Your task to perform on an android device: toggle show notifications on the lock screen Image 0: 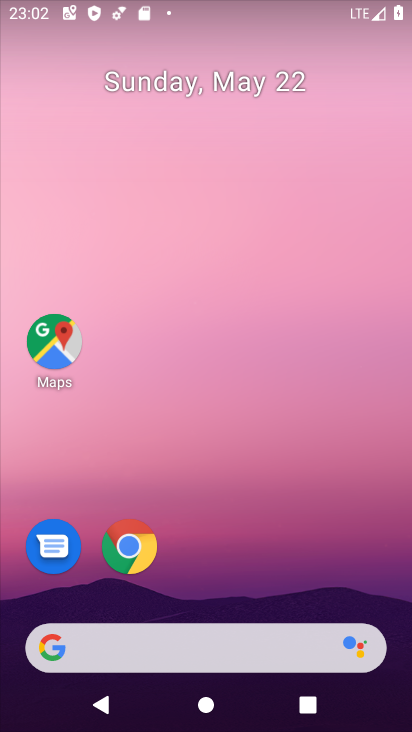
Step 0: drag from (188, 604) to (199, 8)
Your task to perform on an android device: toggle show notifications on the lock screen Image 1: 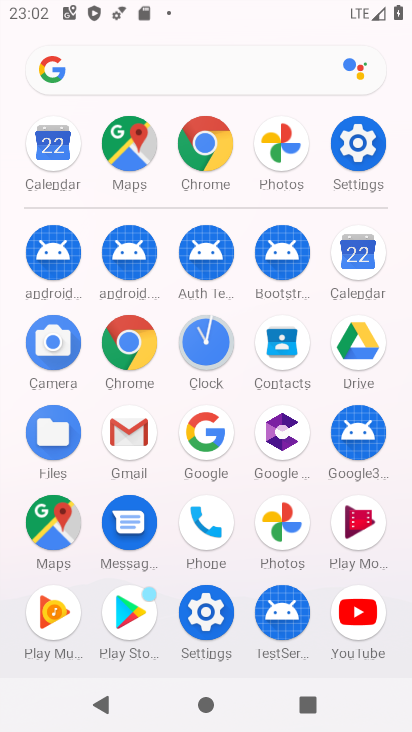
Step 1: click (361, 161)
Your task to perform on an android device: toggle show notifications on the lock screen Image 2: 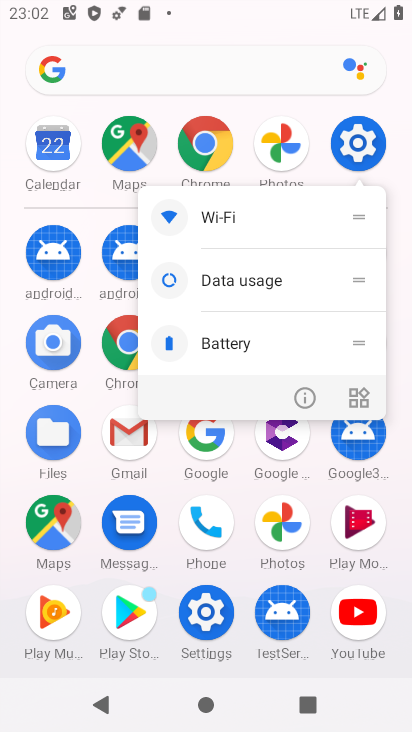
Step 2: click (308, 397)
Your task to perform on an android device: toggle show notifications on the lock screen Image 3: 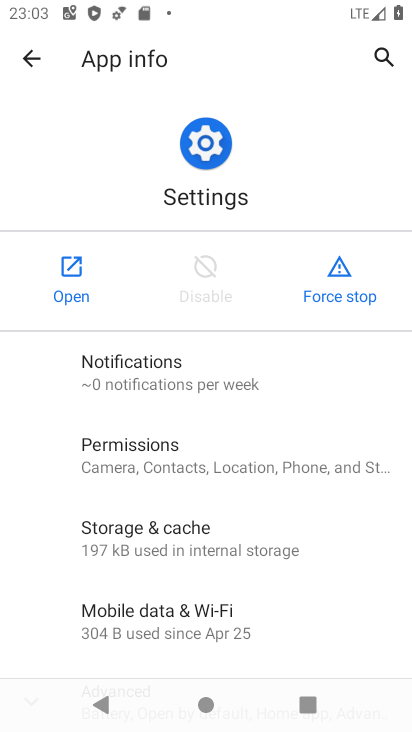
Step 3: click (58, 289)
Your task to perform on an android device: toggle show notifications on the lock screen Image 4: 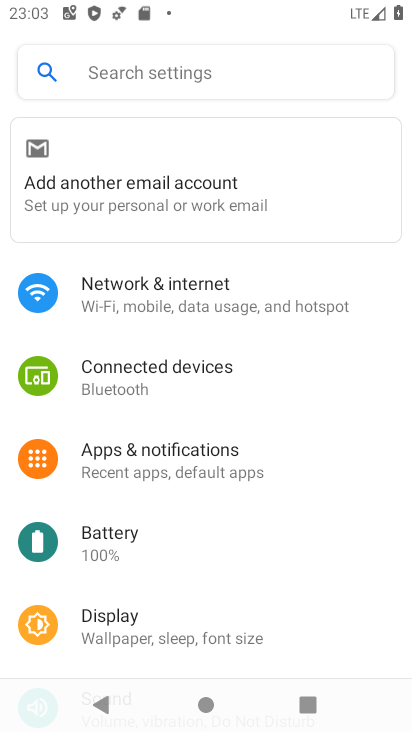
Step 4: drag from (207, 626) to (209, 34)
Your task to perform on an android device: toggle show notifications on the lock screen Image 5: 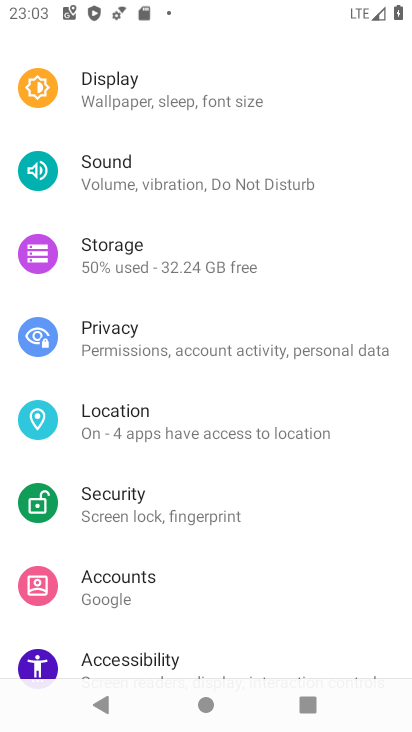
Step 5: drag from (171, 581) to (277, 142)
Your task to perform on an android device: toggle show notifications on the lock screen Image 6: 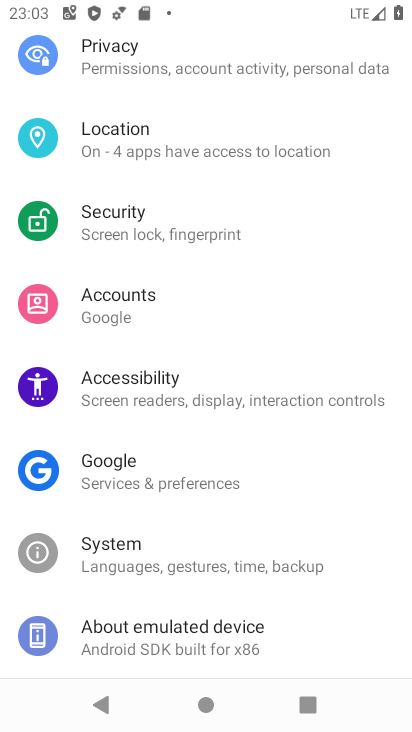
Step 6: drag from (177, 199) to (281, 731)
Your task to perform on an android device: toggle show notifications on the lock screen Image 7: 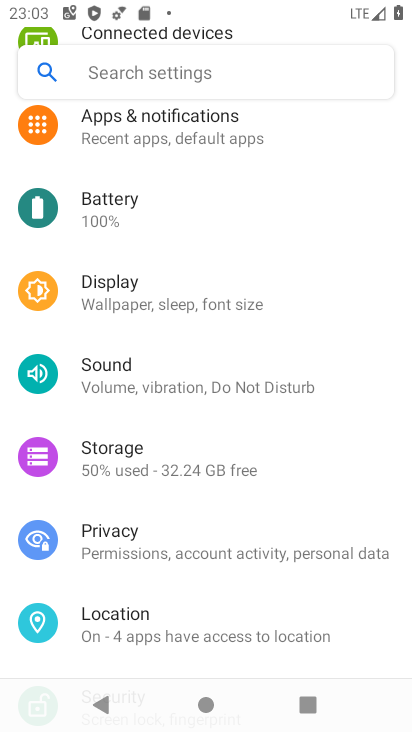
Step 7: drag from (181, 180) to (249, 643)
Your task to perform on an android device: toggle show notifications on the lock screen Image 8: 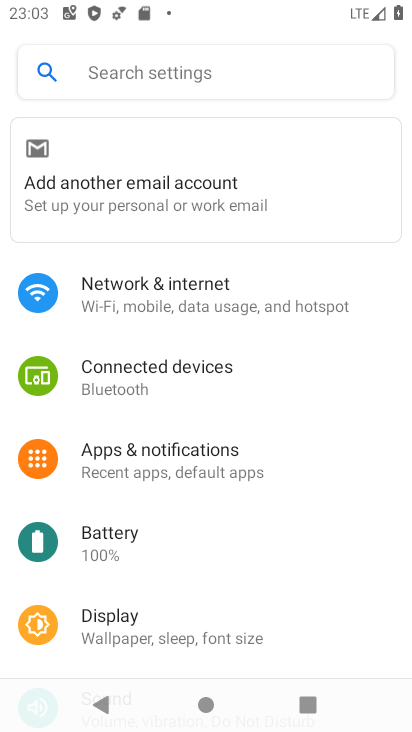
Step 8: click (141, 456)
Your task to perform on an android device: toggle show notifications on the lock screen Image 9: 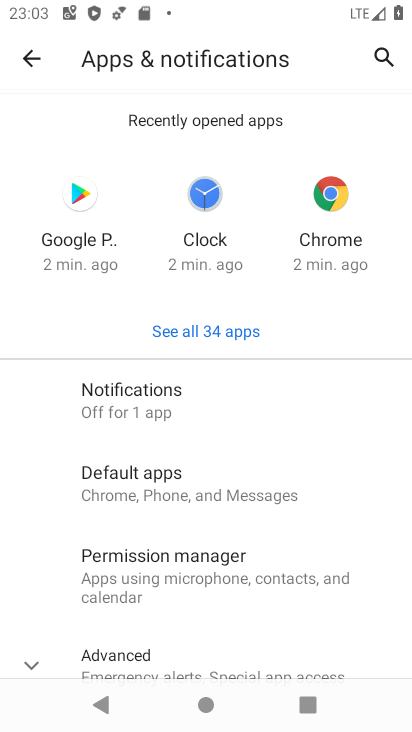
Step 9: click (214, 400)
Your task to perform on an android device: toggle show notifications on the lock screen Image 10: 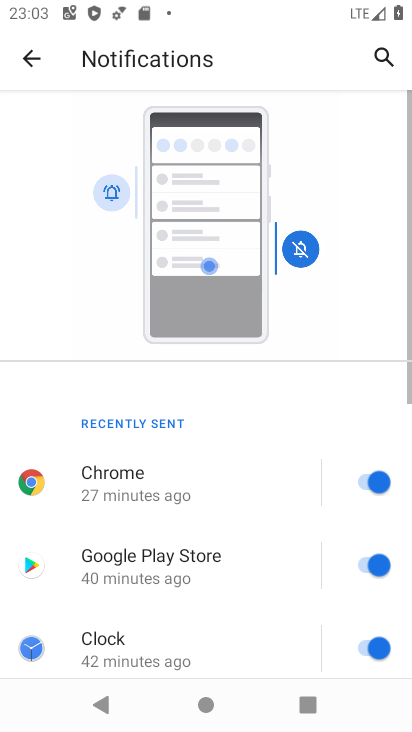
Step 10: drag from (257, 558) to (339, 124)
Your task to perform on an android device: toggle show notifications on the lock screen Image 11: 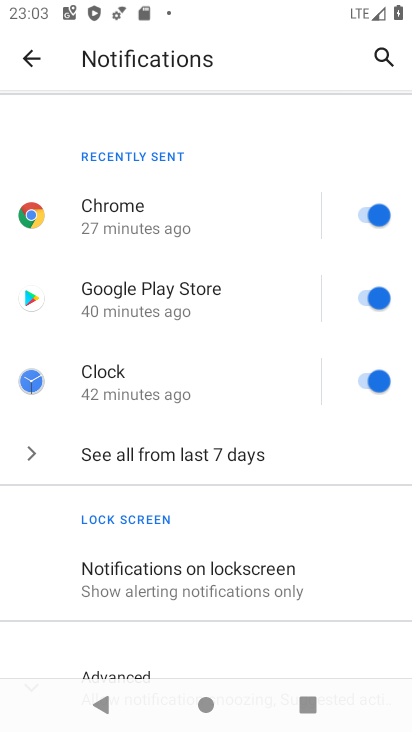
Step 11: click (203, 582)
Your task to perform on an android device: toggle show notifications on the lock screen Image 12: 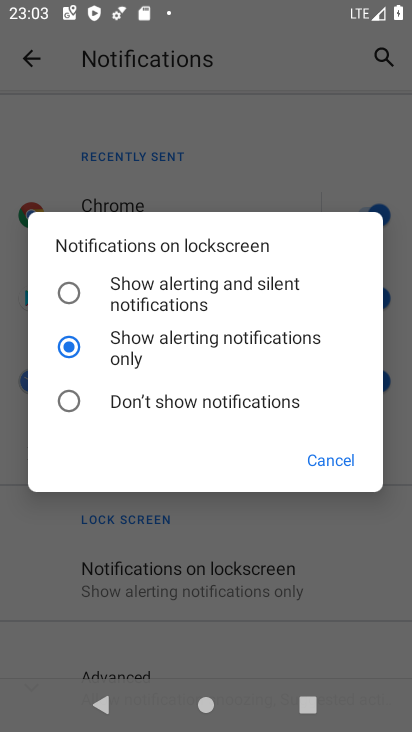
Step 12: drag from (203, 580) to (250, 255)
Your task to perform on an android device: toggle show notifications on the lock screen Image 13: 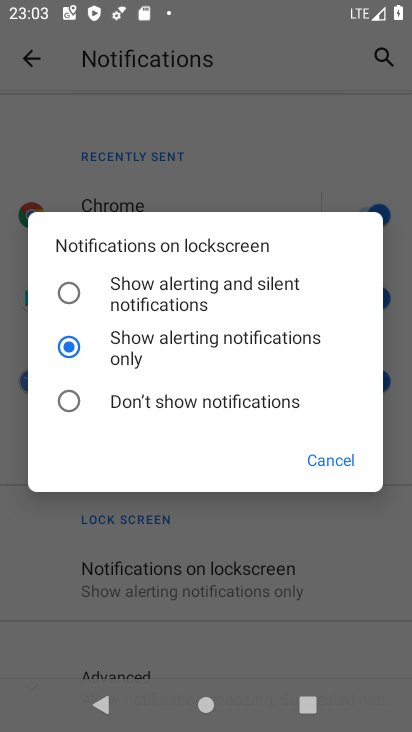
Step 13: click (164, 305)
Your task to perform on an android device: toggle show notifications on the lock screen Image 14: 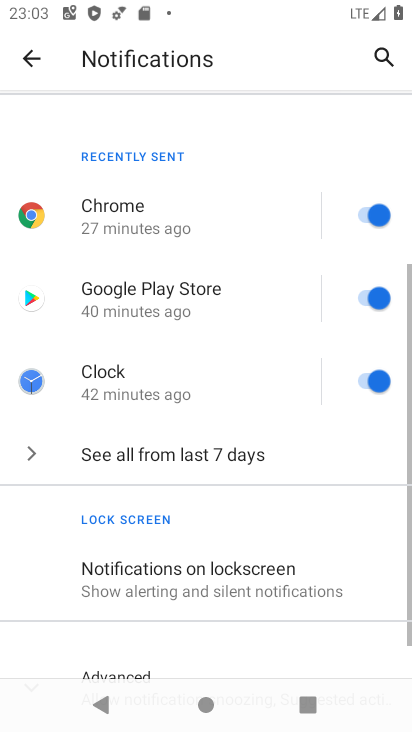
Step 14: task complete